Your task to perform on an android device: find which apps use the phone's location Image 0: 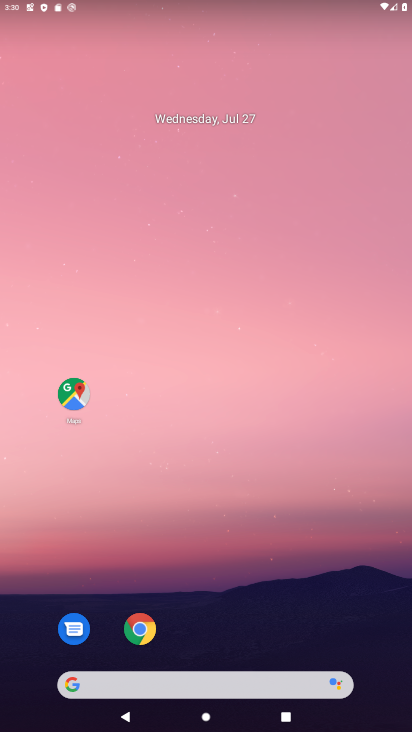
Step 0: drag from (318, 511) to (310, 33)
Your task to perform on an android device: find which apps use the phone's location Image 1: 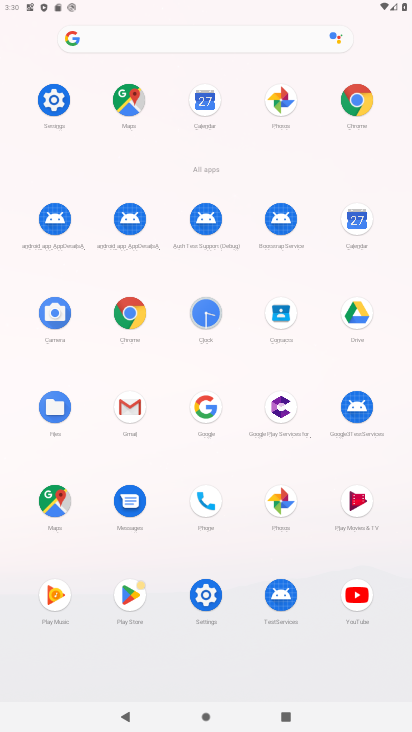
Step 1: click (55, 94)
Your task to perform on an android device: find which apps use the phone's location Image 2: 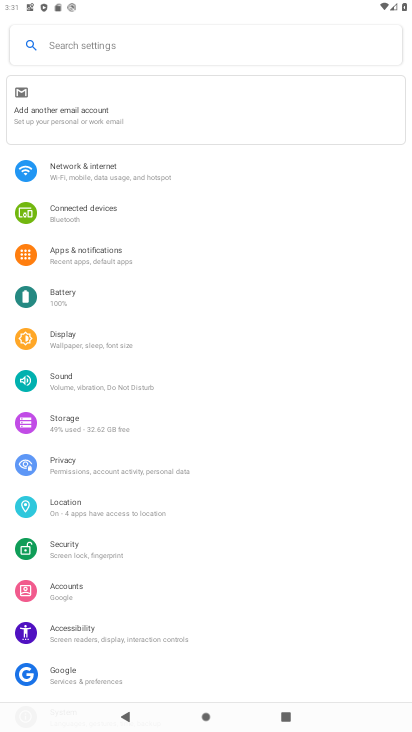
Step 2: click (85, 501)
Your task to perform on an android device: find which apps use the phone's location Image 3: 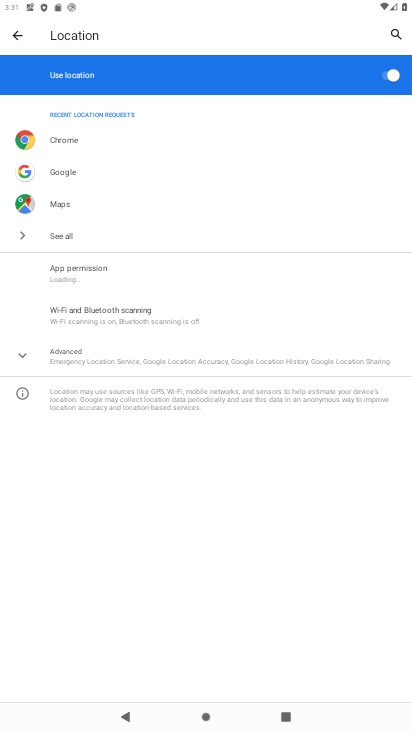
Step 3: click (96, 270)
Your task to perform on an android device: find which apps use the phone's location Image 4: 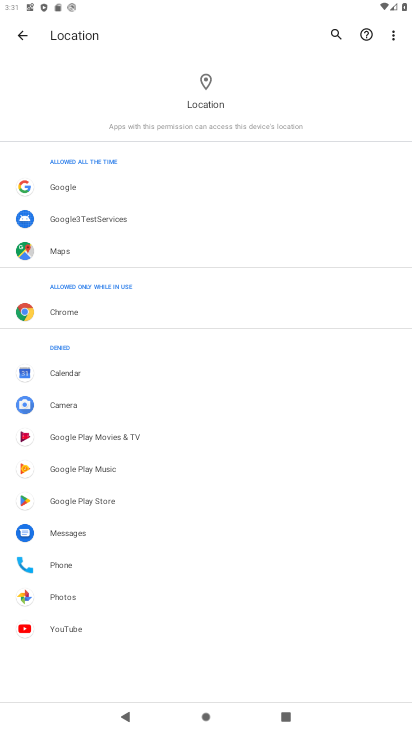
Step 4: task complete